Your task to perform on an android device: Go to Amazon Image 0: 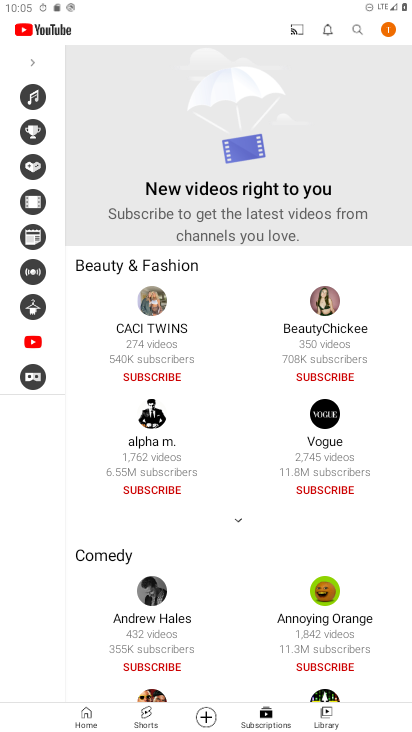
Step 0: press home button
Your task to perform on an android device: Go to Amazon Image 1: 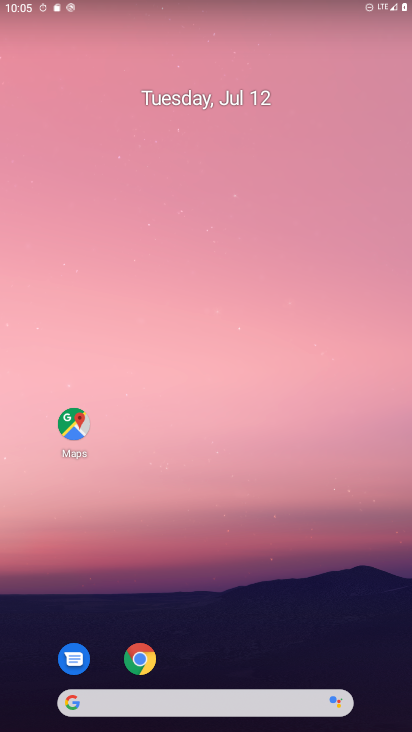
Step 1: drag from (366, 521) to (279, 20)
Your task to perform on an android device: Go to Amazon Image 2: 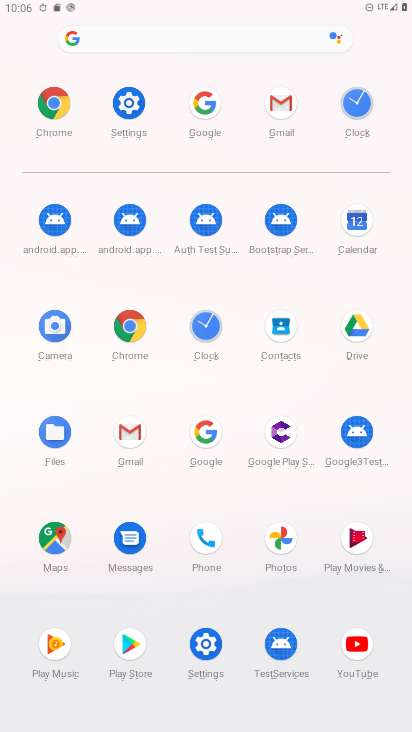
Step 2: click (197, 470)
Your task to perform on an android device: Go to Amazon Image 3: 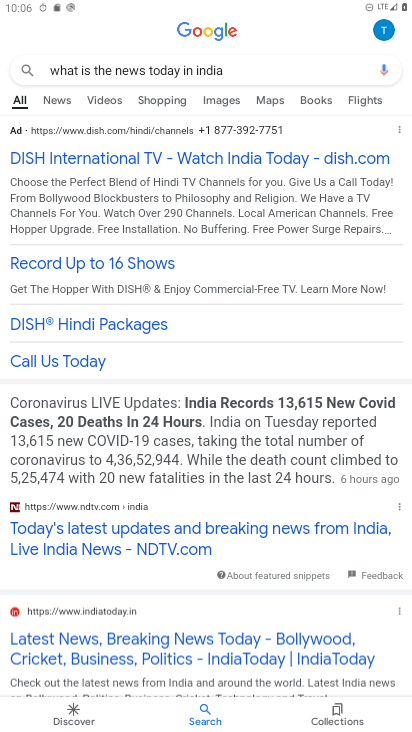
Step 3: press back button
Your task to perform on an android device: Go to Amazon Image 4: 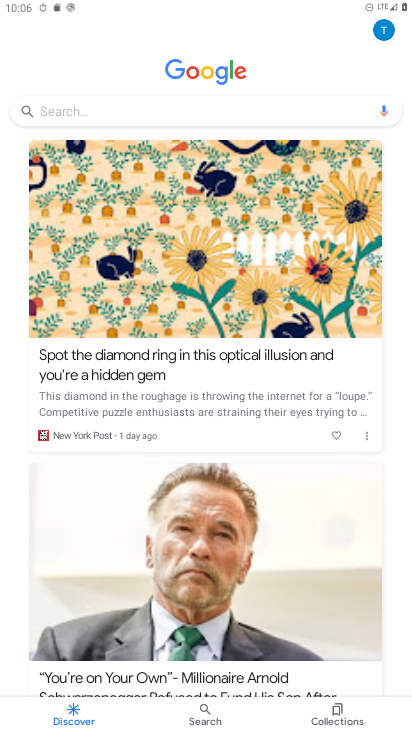
Step 4: click (115, 114)
Your task to perform on an android device: Go to Amazon Image 5: 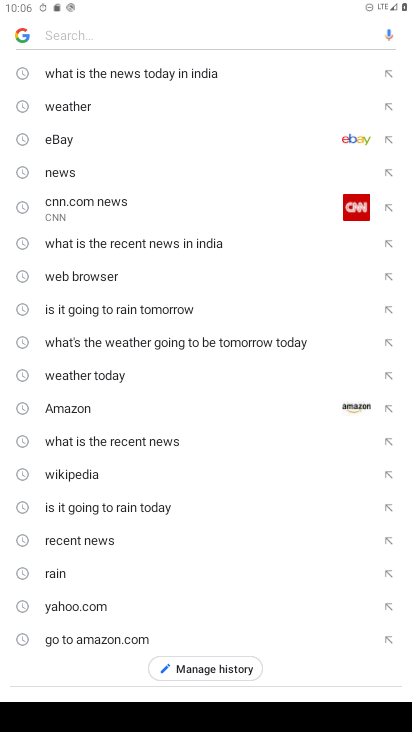
Step 5: click (86, 411)
Your task to perform on an android device: Go to Amazon Image 6: 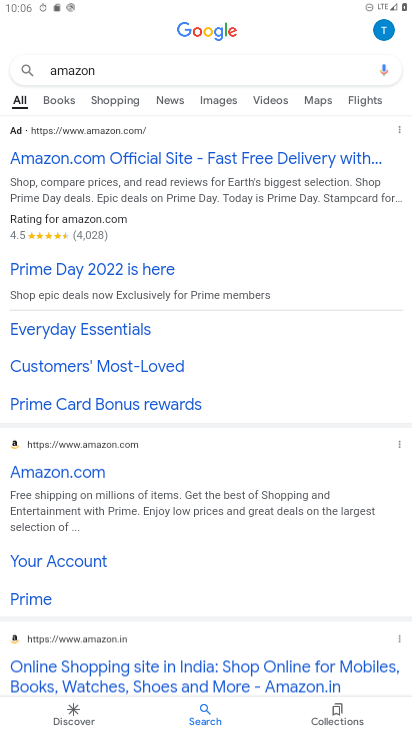
Step 6: task complete